Your task to perform on an android device: What is the speed of a train? Image 0: 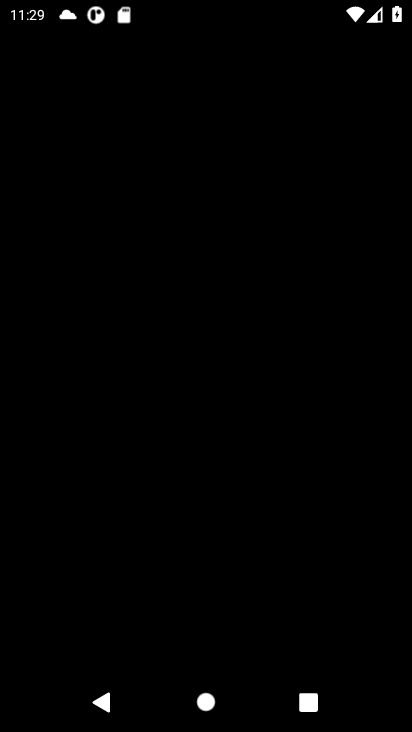
Step 0: press home button
Your task to perform on an android device: What is the speed of a train? Image 1: 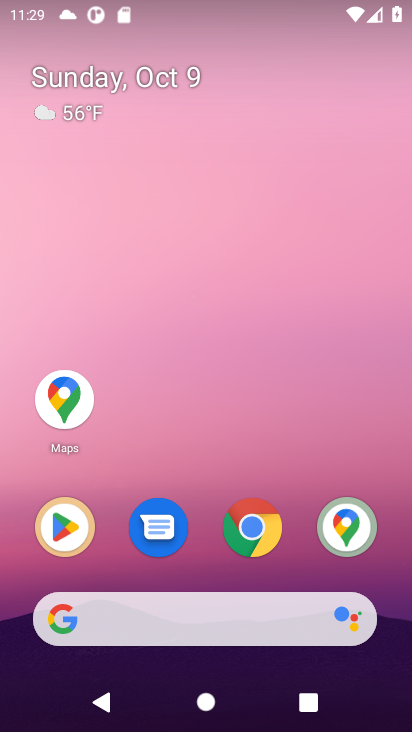
Step 1: click (259, 521)
Your task to perform on an android device: What is the speed of a train? Image 2: 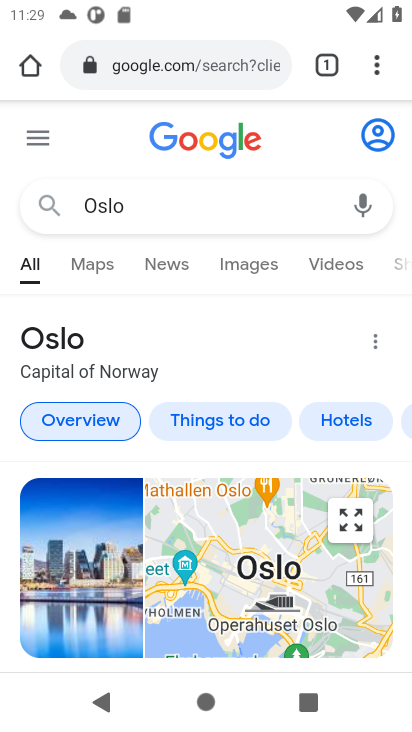
Step 2: click (204, 62)
Your task to perform on an android device: What is the speed of a train? Image 3: 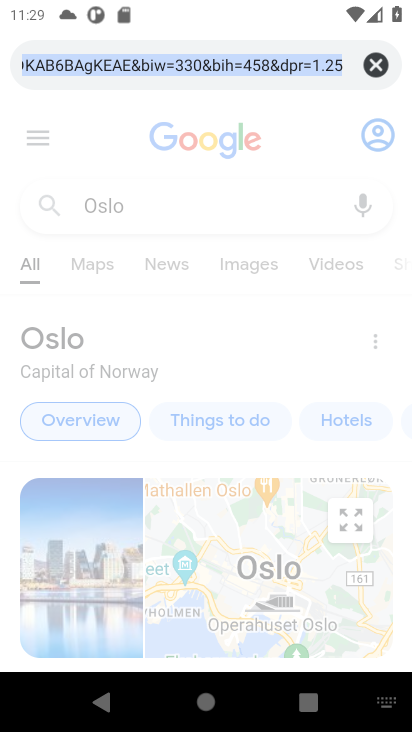
Step 3: click (375, 71)
Your task to perform on an android device: What is the speed of a train? Image 4: 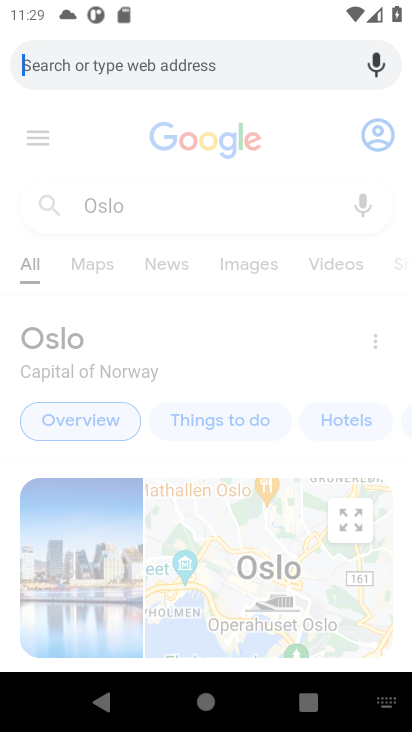
Step 4: type "What is the speed of a train?"
Your task to perform on an android device: What is the speed of a train? Image 5: 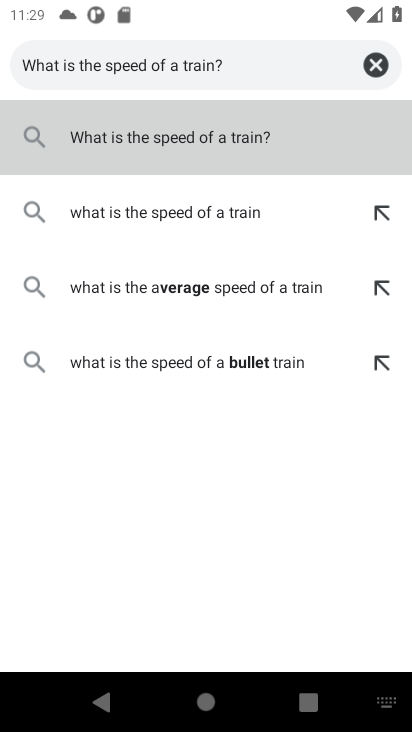
Step 5: click (204, 140)
Your task to perform on an android device: What is the speed of a train? Image 6: 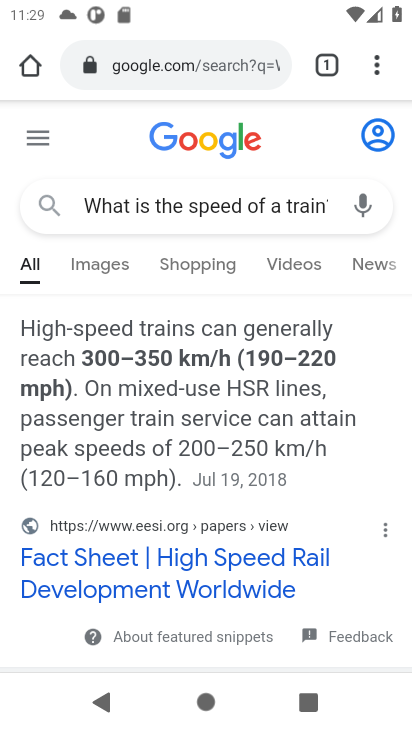
Step 6: task complete